Your task to perform on an android device: Go to Reddit.com Image 0: 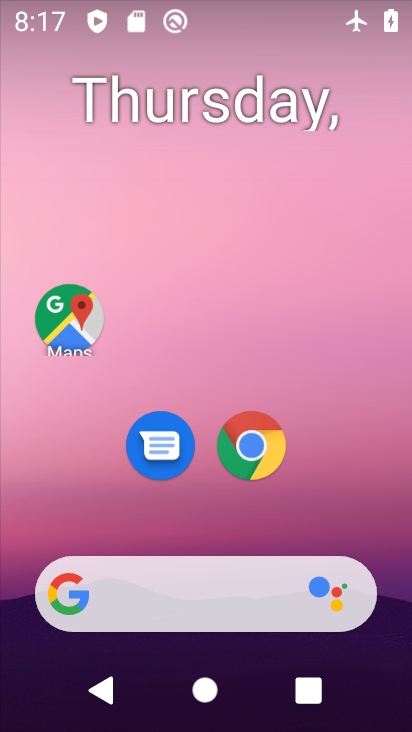
Step 0: click (262, 450)
Your task to perform on an android device: Go to Reddit.com Image 1: 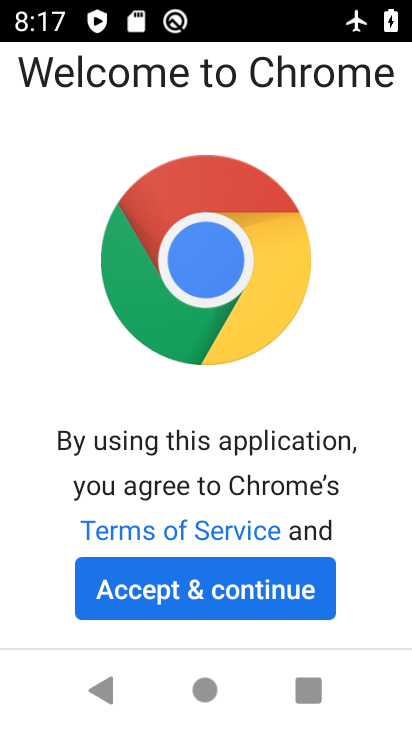
Step 1: click (239, 578)
Your task to perform on an android device: Go to Reddit.com Image 2: 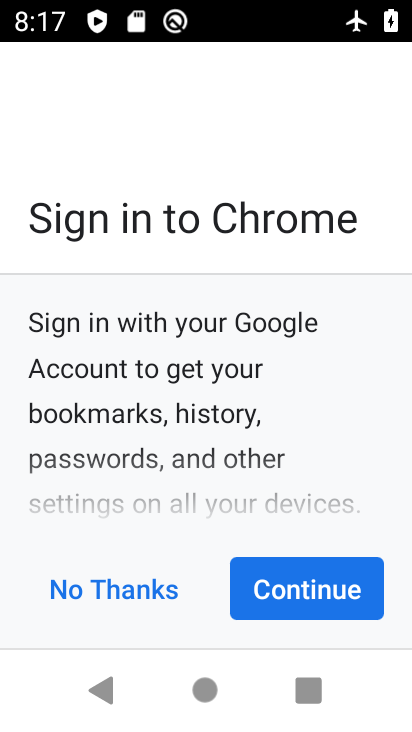
Step 2: click (309, 606)
Your task to perform on an android device: Go to Reddit.com Image 3: 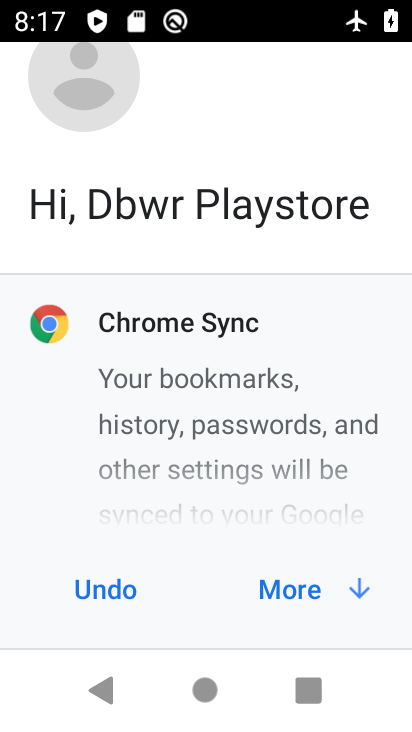
Step 3: click (305, 580)
Your task to perform on an android device: Go to Reddit.com Image 4: 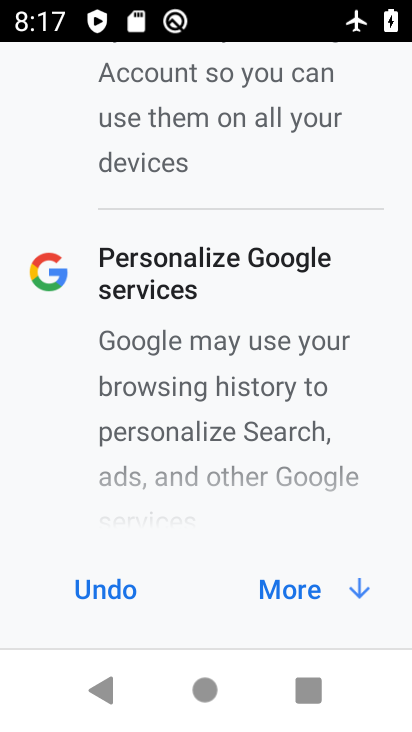
Step 4: click (304, 588)
Your task to perform on an android device: Go to Reddit.com Image 5: 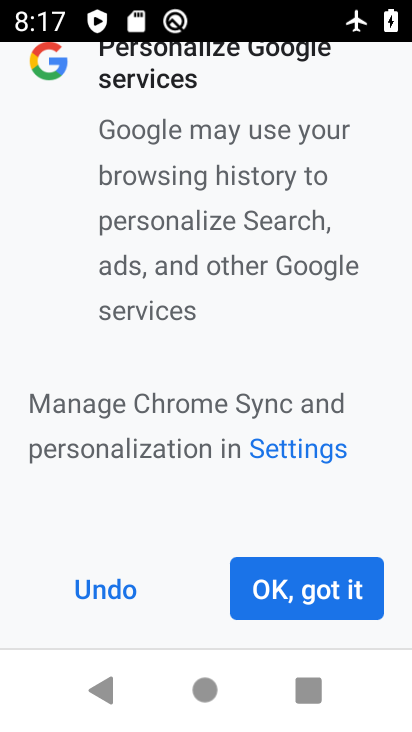
Step 5: click (304, 588)
Your task to perform on an android device: Go to Reddit.com Image 6: 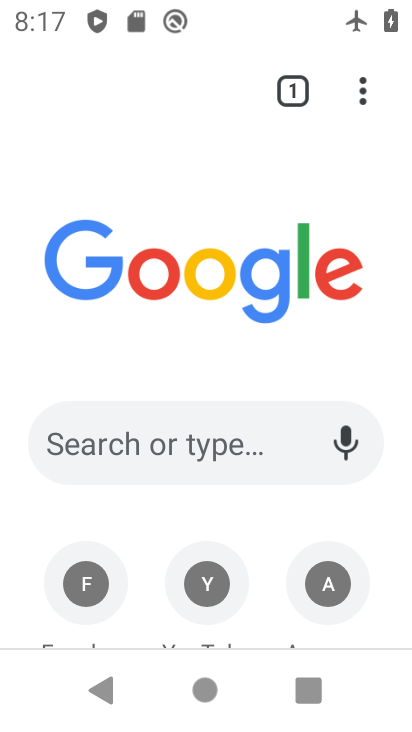
Step 6: click (224, 456)
Your task to perform on an android device: Go to Reddit.com Image 7: 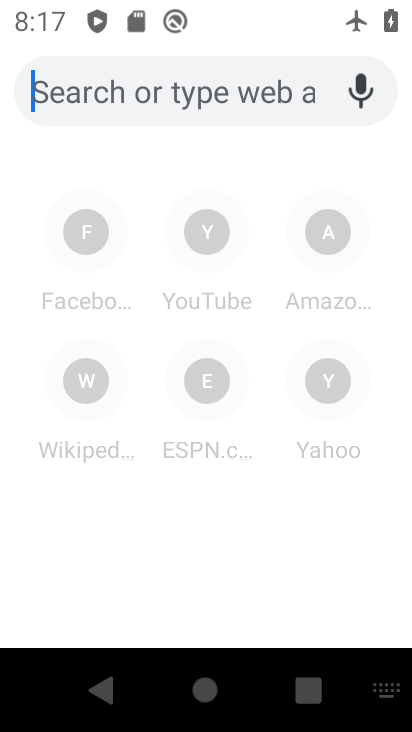
Step 7: type "reddit.com"
Your task to perform on an android device: Go to Reddit.com Image 8: 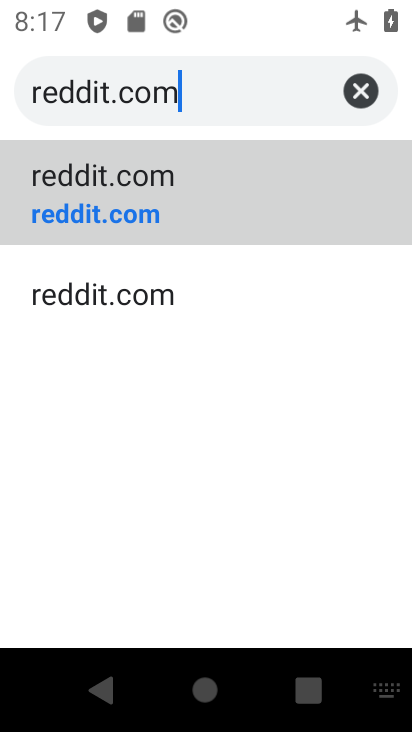
Step 8: click (121, 200)
Your task to perform on an android device: Go to Reddit.com Image 9: 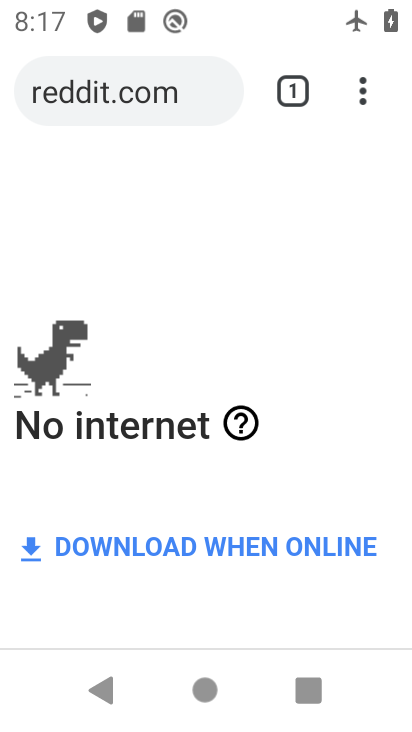
Step 9: task complete